Your task to perform on an android device: Is it going to rain this weekend? Image 0: 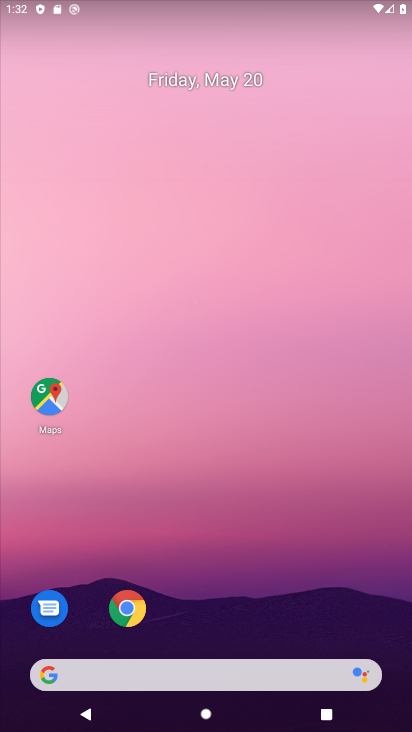
Step 0: drag from (282, 577) to (260, 176)
Your task to perform on an android device: Is it going to rain this weekend? Image 1: 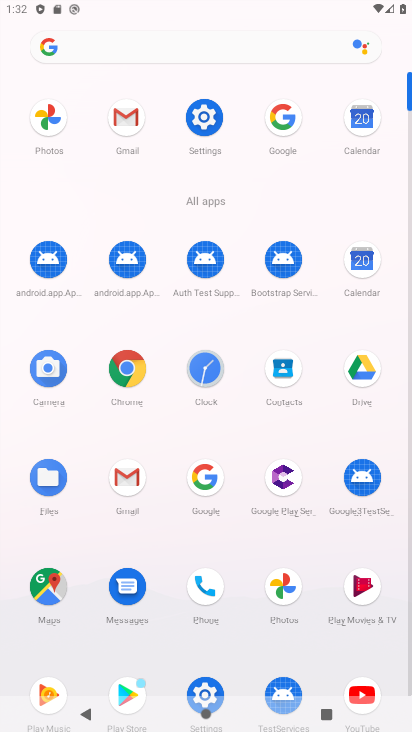
Step 1: click (207, 481)
Your task to perform on an android device: Is it going to rain this weekend? Image 2: 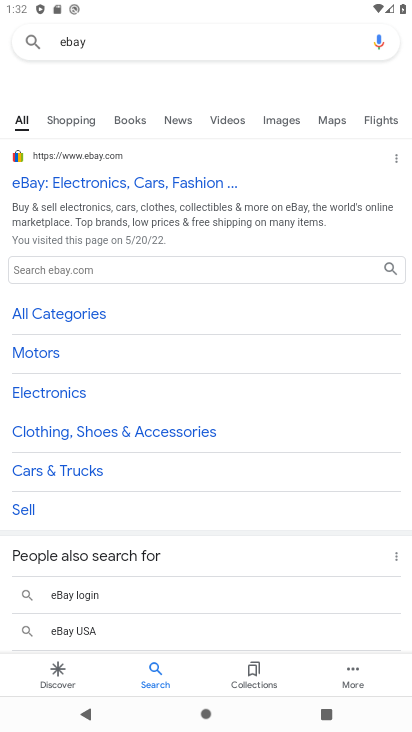
Step 2: click (102, 40)
Your task to perform on an android device: Is it going to rain this weekend? Image 3: 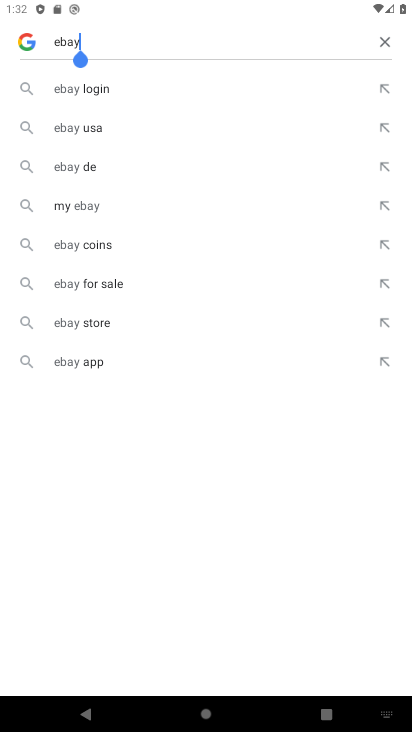
Step 3: click (386, 44)
Your task to perform on an android device: Is it going to rain this weekend? Image 4: 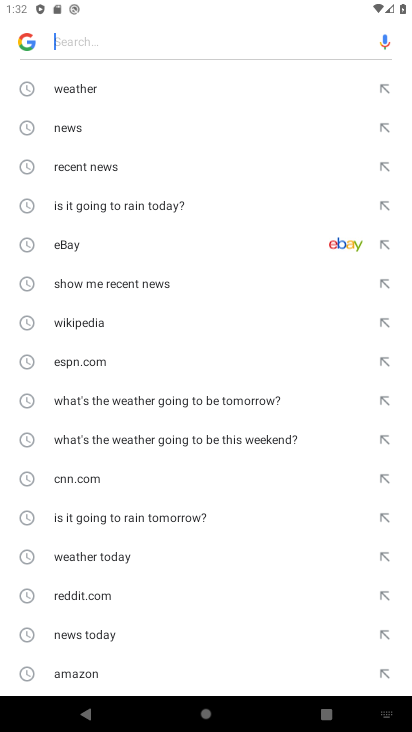
Step 4: drag from (218, 597) to (228, 391)
Your task to perform on an android device: Is it going to rain this weekend? Image 5: 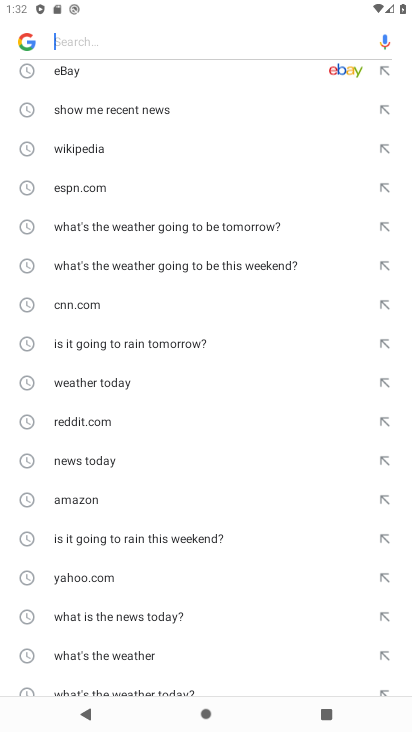
Step 5: click (146, 545)
Your task to perform on an android device: Is it going to rain this weekend? Image 6: 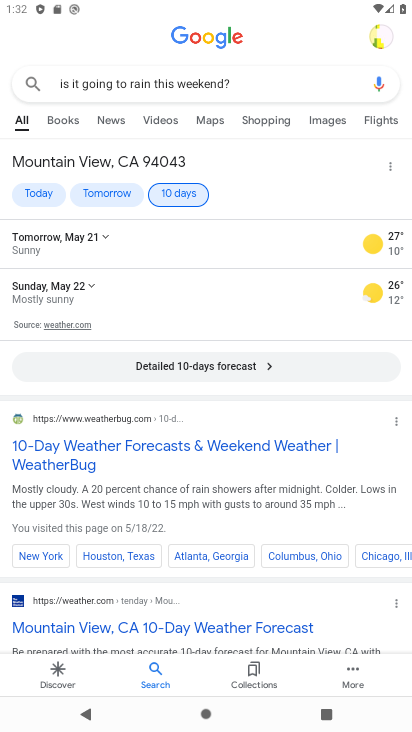
Step 6: task complete